Your task to perform on an android device: Open accessibility settings Image 0: 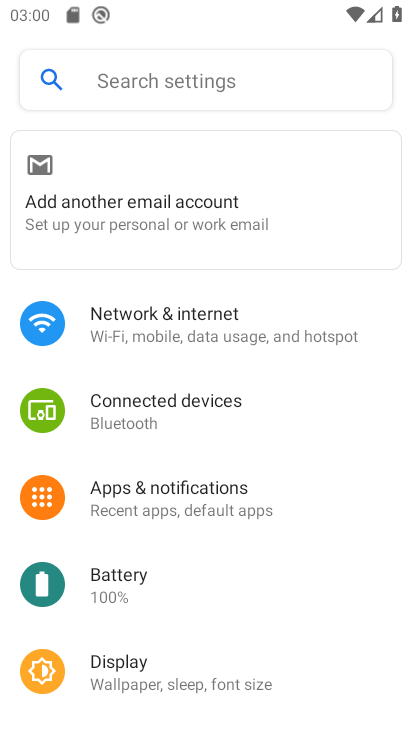
Step 0: drag from (353, 567) to (348, 393)
Your task to perform on an android device: Open accessibility settings Image 1: 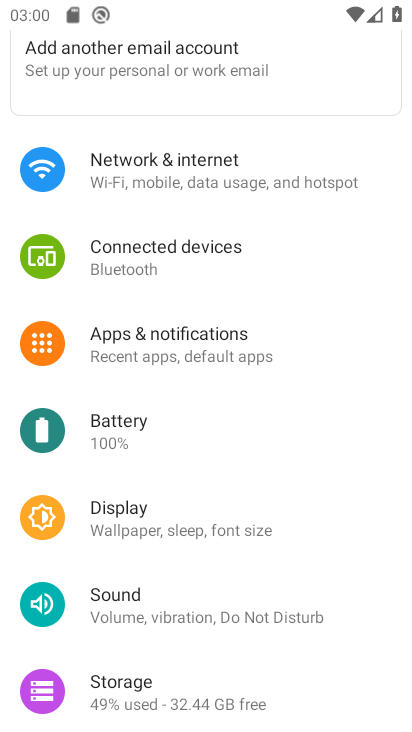
Step 1: drag from (348, 563) to (350, 445)
Your task to perform on an android device: Open accessibility settings Image 2: 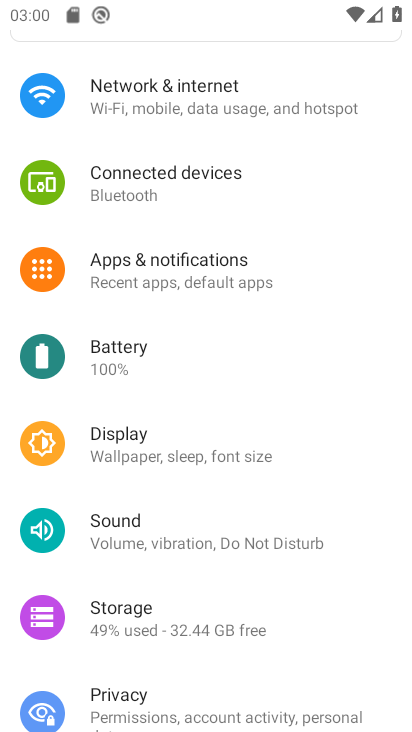
Step 2: drag from (347, 573) to (357, 457)
Your task to perform on an android device: Open accessibility settings Image 3: 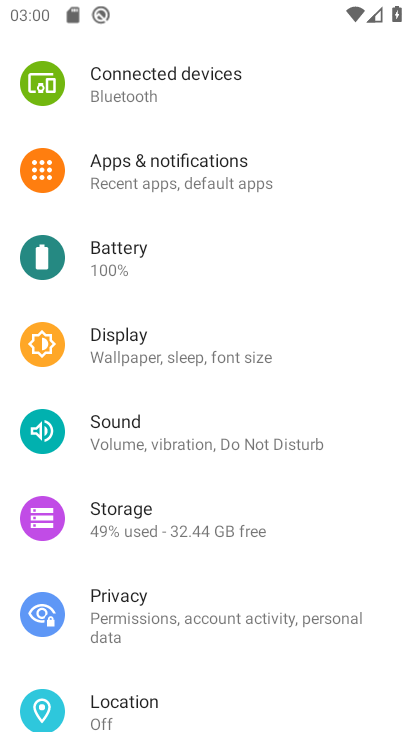
Step 3: drag from (357, 573) to (362, 476)
Your task to perform on an android device: Open accessibility settings Image 4: 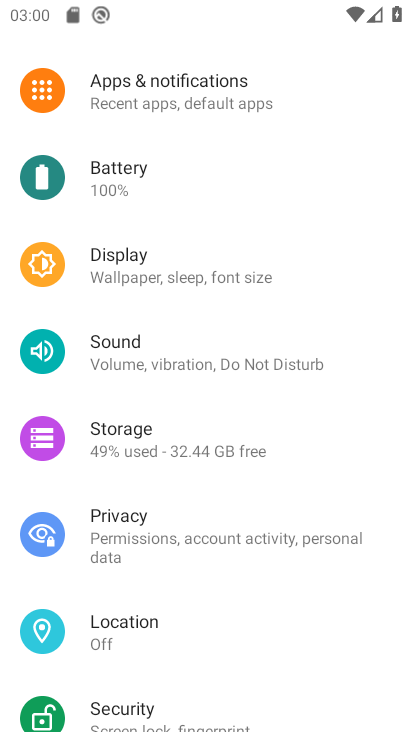
Step 4: drag from (357, 603) to (369, 506)
Your task to perform on an android device: Open accessibility settings Image 5: 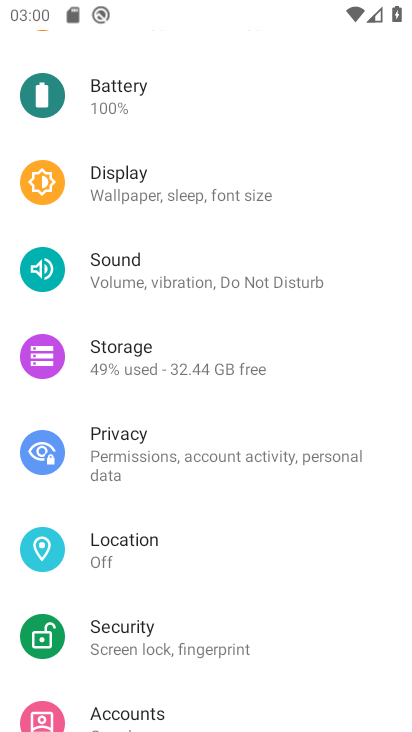
Step 5: drag from (354, 601) to (356, 500)
Your task to perform on an android device: Open accessibility settings Image 6: 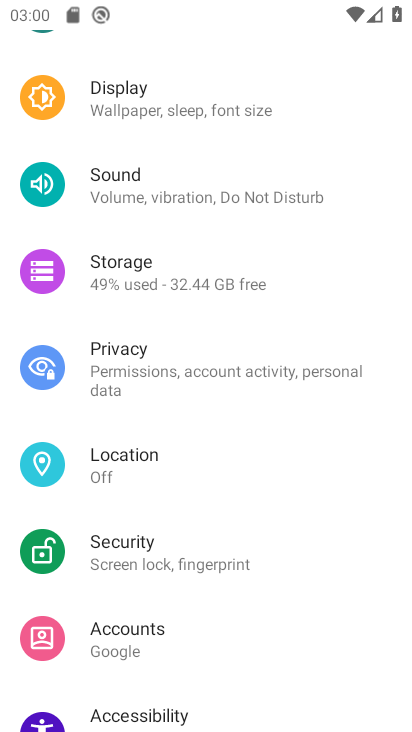
Step 6: drag from (346, 609) to (350, 517)
Your task to perform on an android device: Open accessibility settings Image 7: 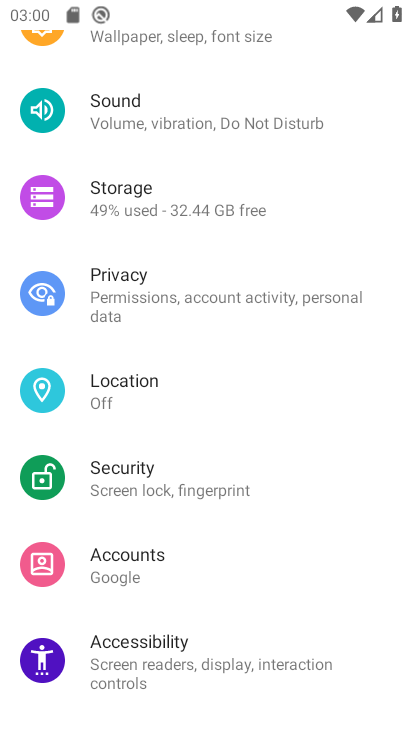
Step 7: drag from (355, 595) to (358, 507)
Your task to perform on an android device: Open accessibility settings Image 8: 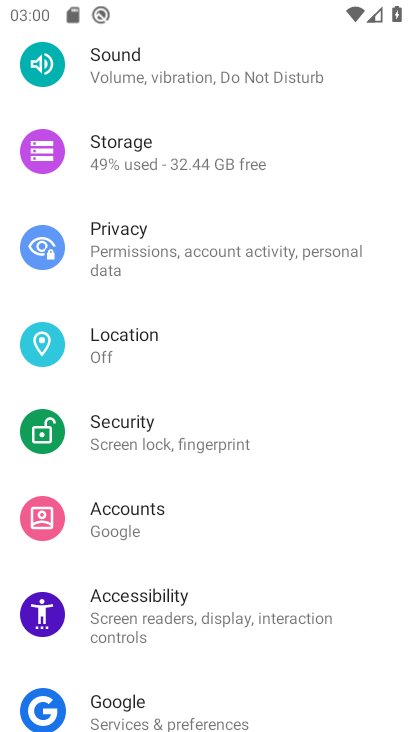
Step 8: drag from (349, 625) to (350, 503)
Your task to perform on an android device: Open accessibility settings Image 9: 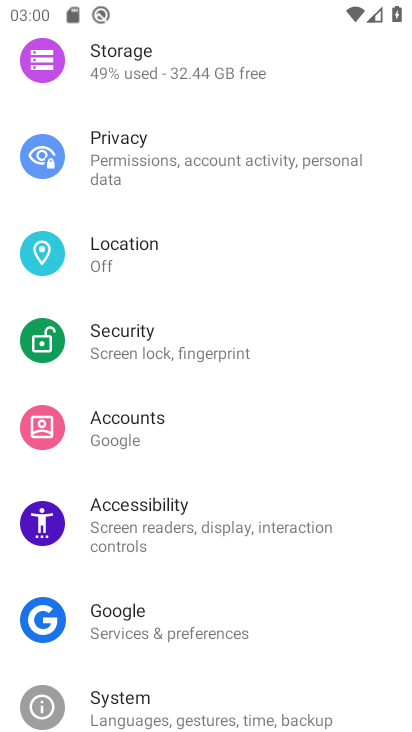
Step 9: drag from (363, 609) to (362, 486)
Your task to perform on an android device: Open accessibility settings Image 10: 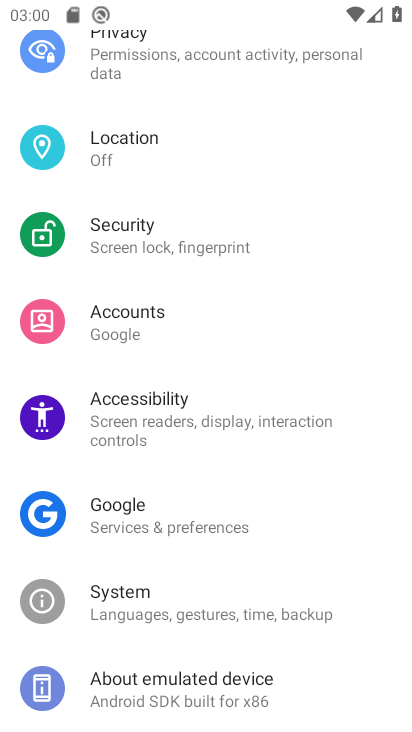
Step 10: drag from (357, 589) to (360, 499)
Your task to perform on an android device: Open accessibility settings Image 11: 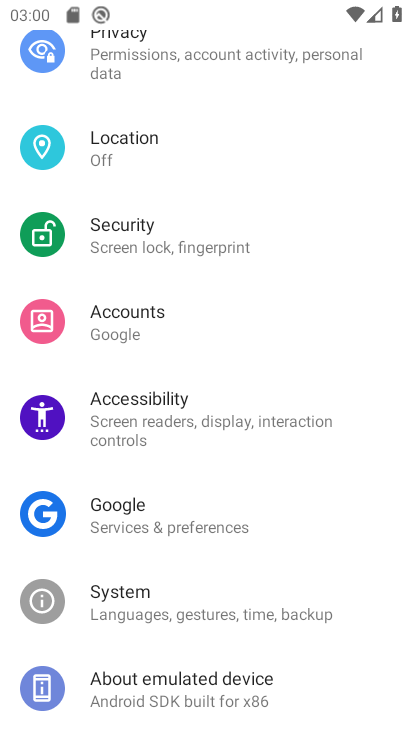
Step 11: click (285, 420)
Your task to perform on an android device: Open accessibility settings Image 12: 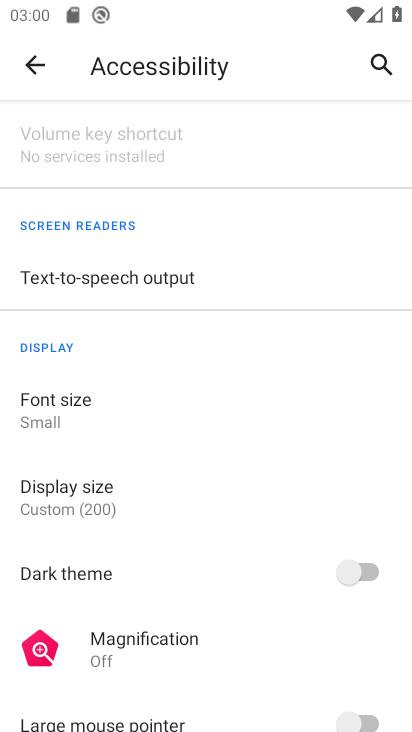
Step 12: task complete